Your task to perform on an android device: turn on improve location accuracy Image 0: 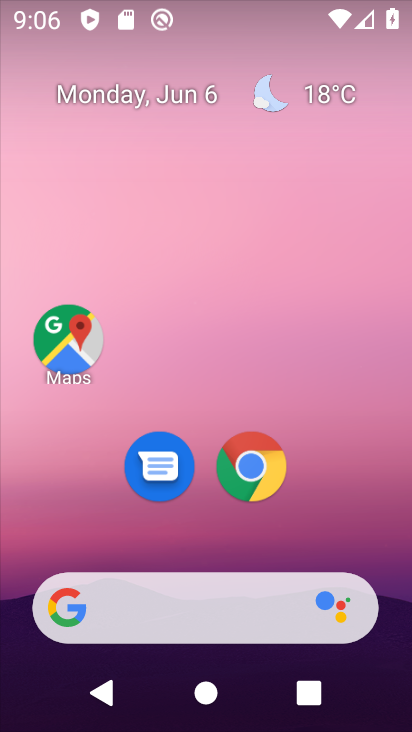
Step 0: drag from (189, 575) to (250, 202)
Your task to perform on an android device: turn on improve location accuracy Image 1: 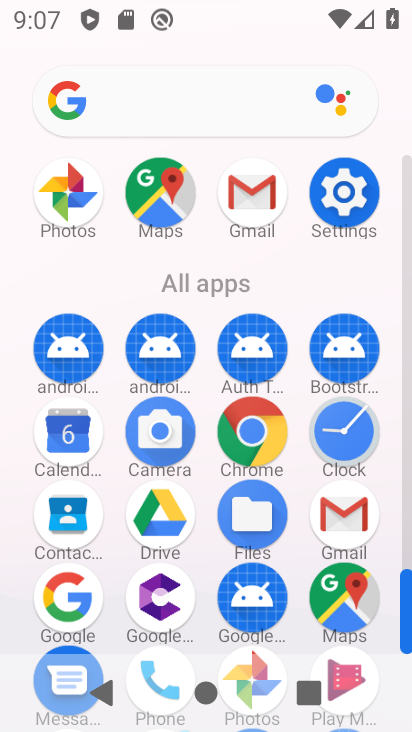
Step 1: click (347, 201)
Your task to perform on an android device: turn on improve location accuracy Image 2: 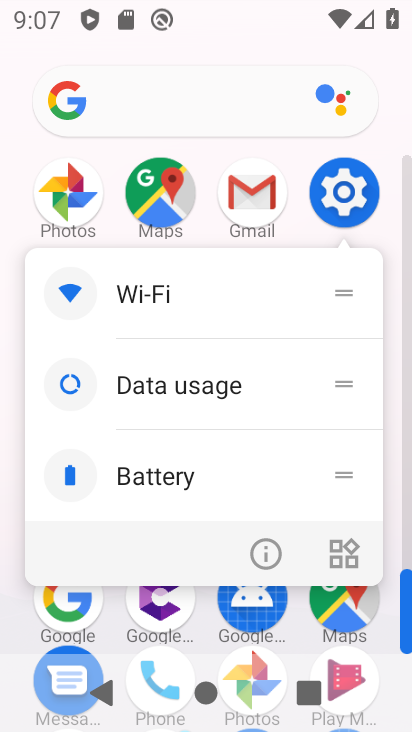
Step 2: click (345, 197)
Your task to perform on an android device: turn on improve location accuracy Image 3: 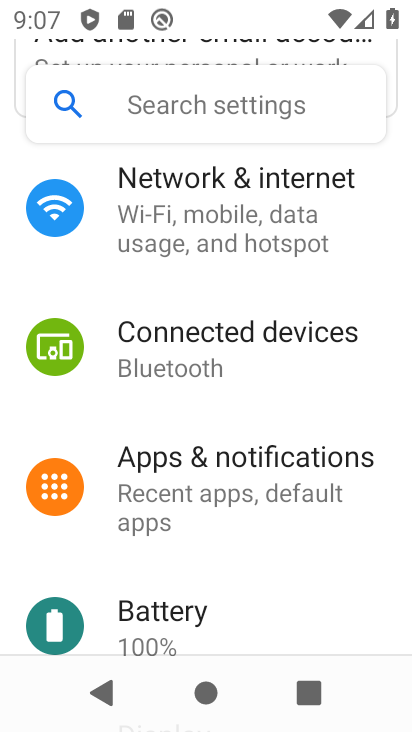
Step 3: drag from (281, 228) to (221, 635)
Your task to perform on an android device: turn on improve location accuracy Image 4: 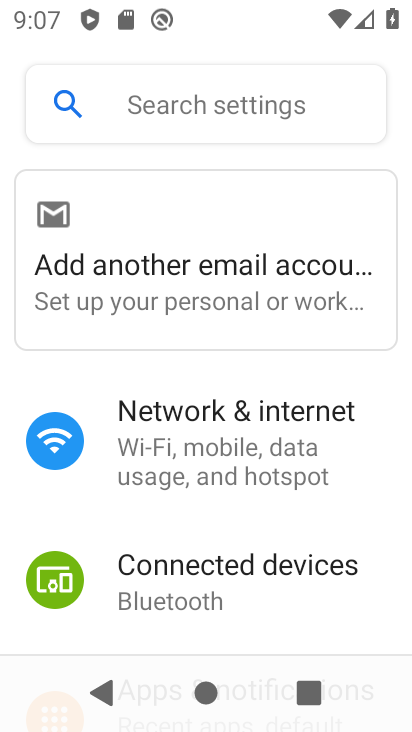
Step 4: drag from (236, 573) to (262, 272)
Your task to perform on an android device: turn on improve location accuracy Image 5: 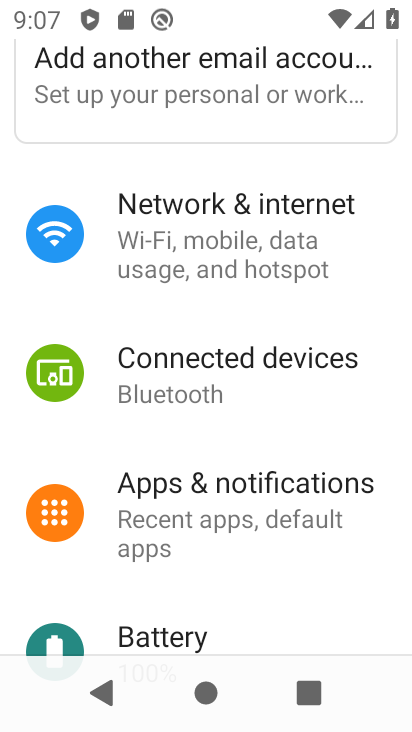
Step 5: drag from (239, 575) to (239, 276)
Your task to perform on an android device: turn on improve location accuracy Image 6: 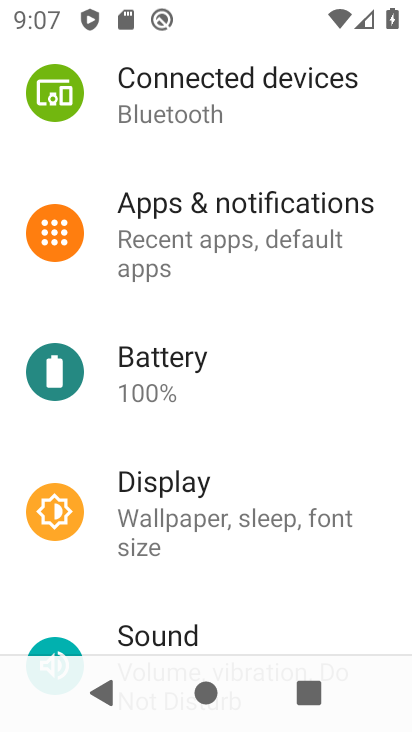
Step 6: drag from (198, 584) to (203, 288)
Your task to perform on an android device: turn on improve location accuracy Image 7: 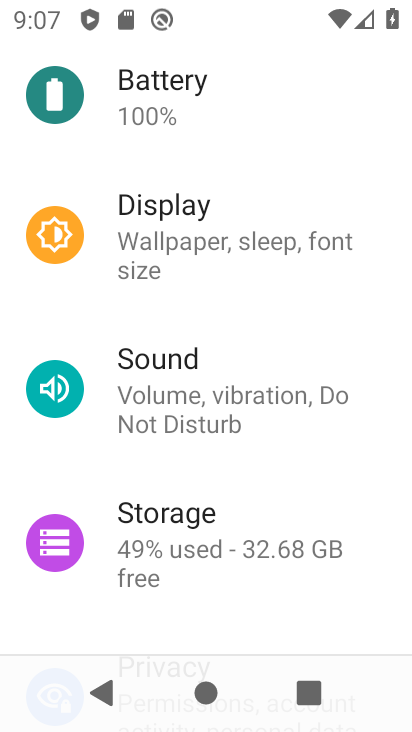
Step 7: drag from (174, 412) to (196, 182)
Your task to perform on an android device: turn on improve location accuracy Image 8: 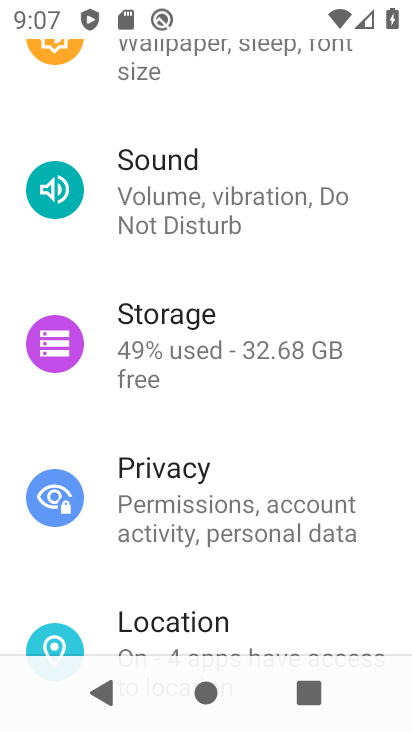
Step 8: drag from (201, 586) to (201, 402)
Your task to perform on an android device: turn on improve location accuracy Image 9: 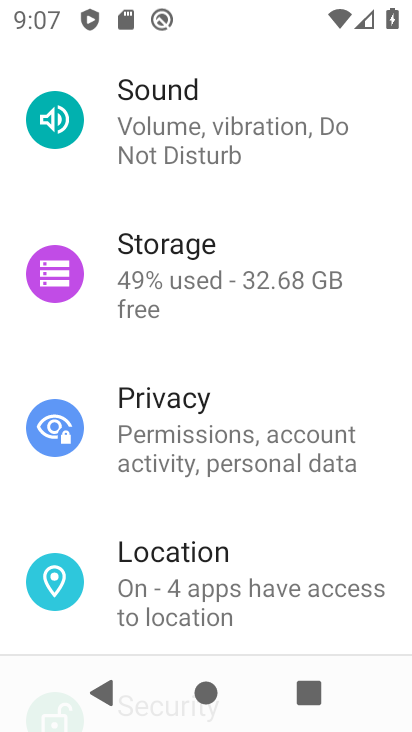
Step 9: click (170, 573)
Your task to perform on an android device: turn on improve location accuracy Image 10: 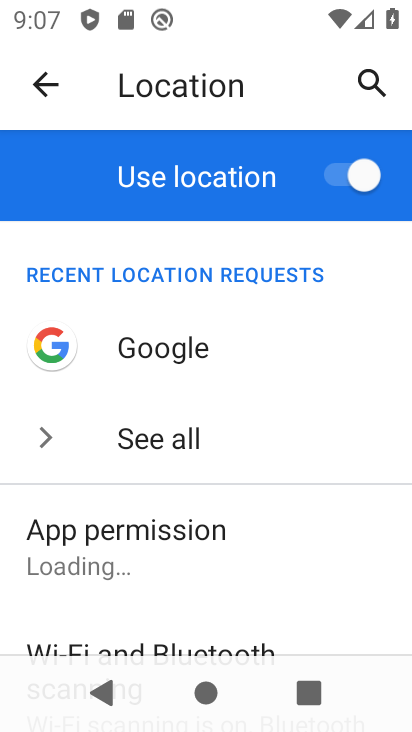
Step 10: drag from (157, 613) to (144, 347)
Your task to perform on an android device: turn on improve location accuracy Image 11: 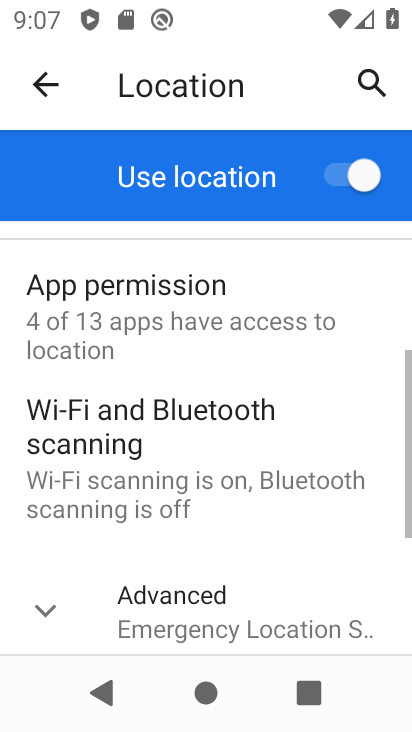
Step 11: click (183, 602)
Your task to perform on an android device: turn on improve location accuracy Image 12: 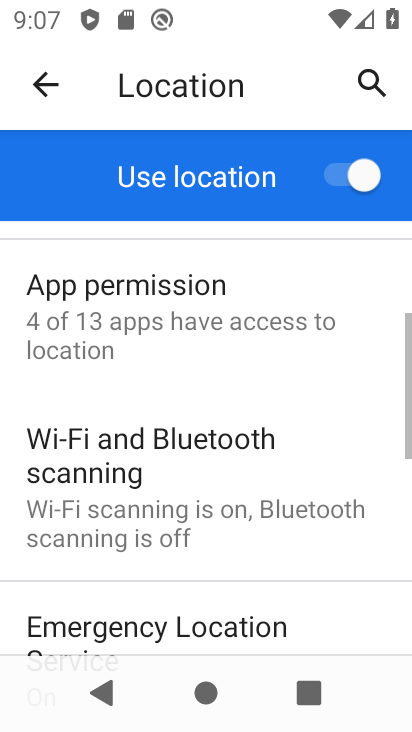
Step 12: drag from (182, 603) to (156, 343)
Your task to perform on an android device: turn on improve location accuracy Image 13: 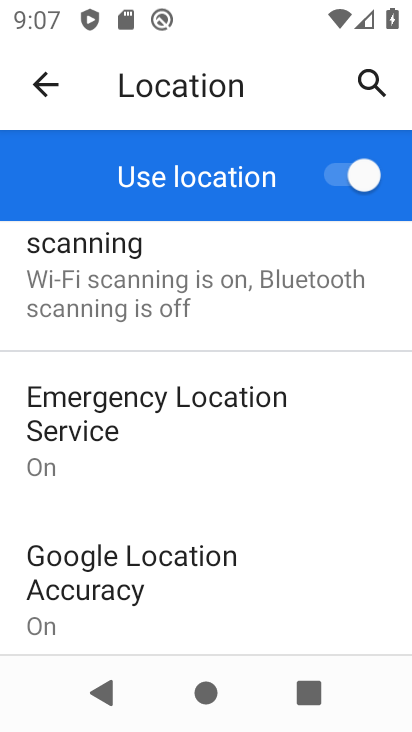
Step 13: click (138, 614)
Your task to perform on an android device: turn on improve location accuracy Image 14: 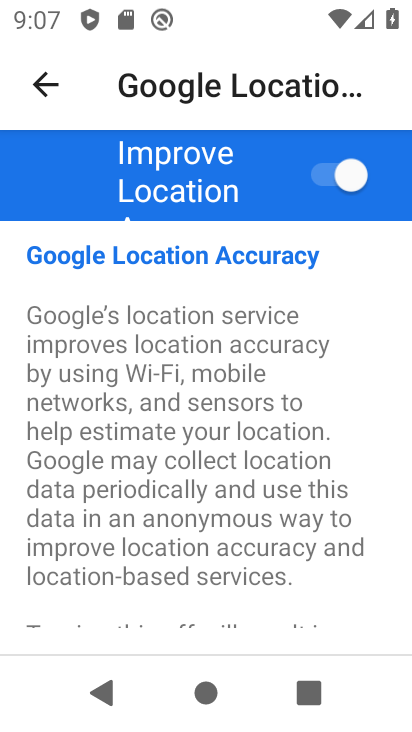
Step 14: task complete